Your task to perform on an android device: Do I have any events this weekend? Image 0: 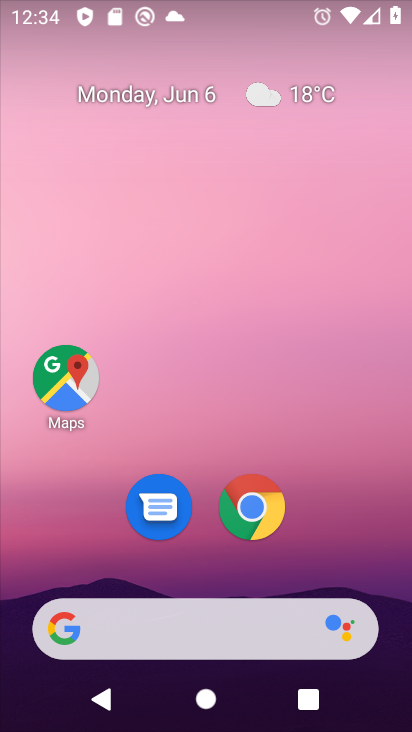
Step 0: drag from (216, 578) to (249, 138)
Your task to perform on an android device: Do I have any events this weekend? Image 1: 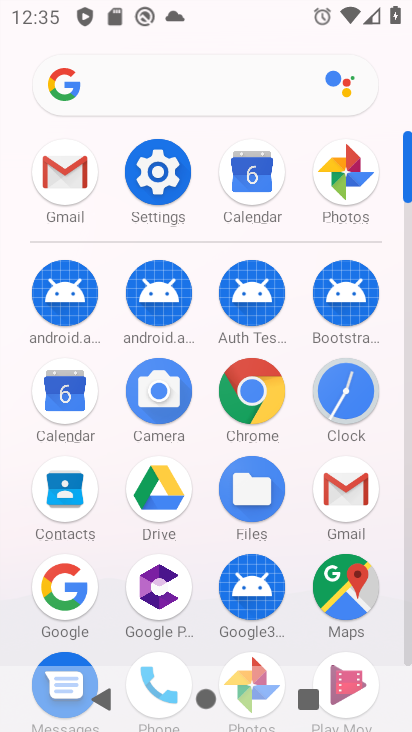
Step 1: click (74, 417)
Your task to perform on an android device: Do I have any events this weekend? Image 2: 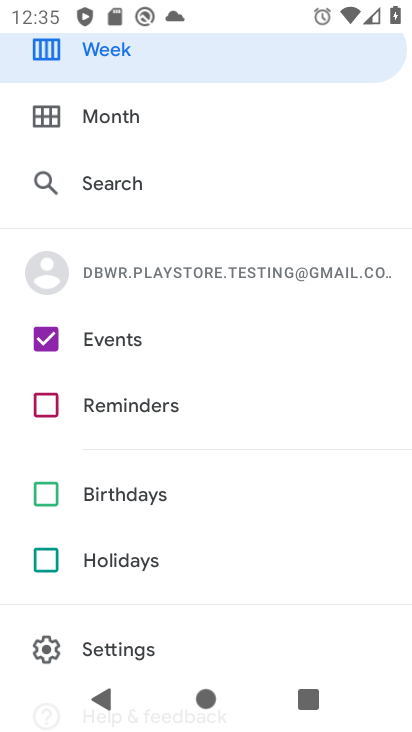
Step 2: click (101, 58)
Your task to perform on an android device: Do I have any events this weekend? Image 3: 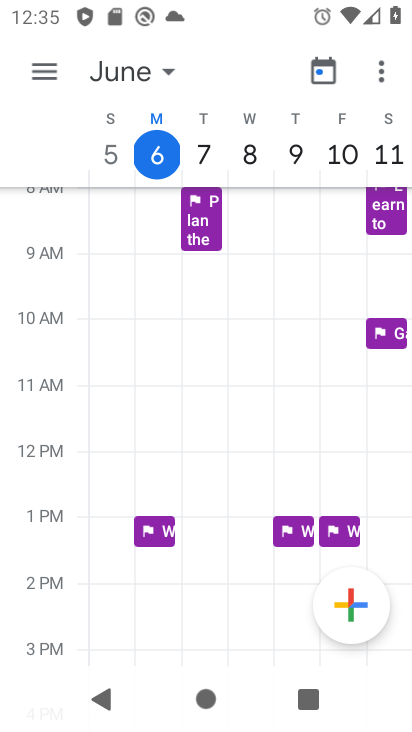
Step 3: task complete